Your task to perform on an android device: Open the Play Movies app and select the watchlist tab. Image 0: 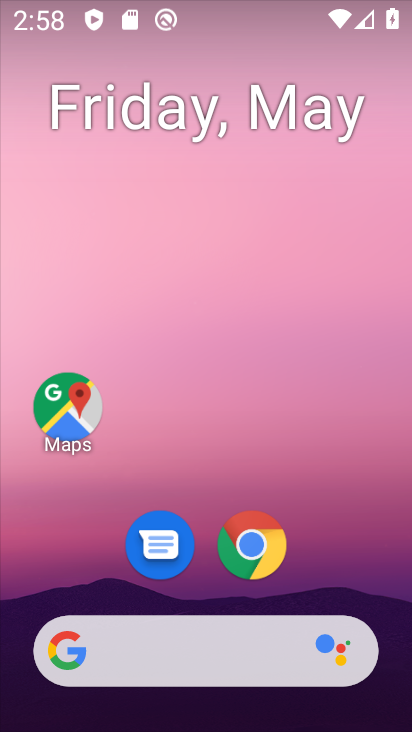
Step 0: drag from (350, 565) to (337, 106)
Your task to perform on an android device: Open the Play Movies app and select the watchlist tab. Image 1: 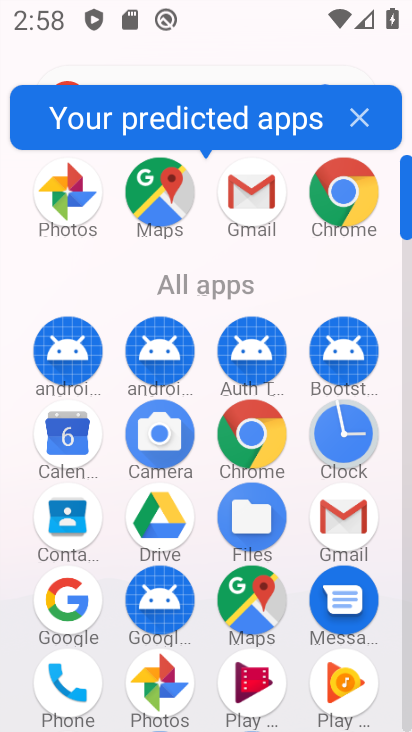
Step 1: click (240, 689)
Your task to perform on an android device: Open the Play Movies app and select the watchlist tab. Image 2: 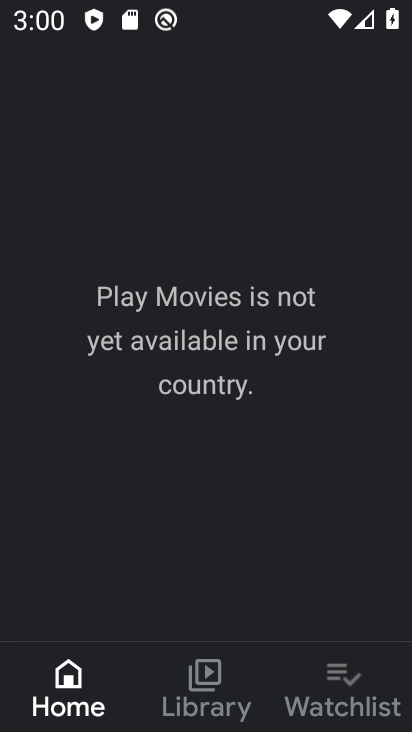
Step 2: click (330, 684)
Your task to perform on an android device: Open the Play Movies app and select the watchlist tab. Image 3: 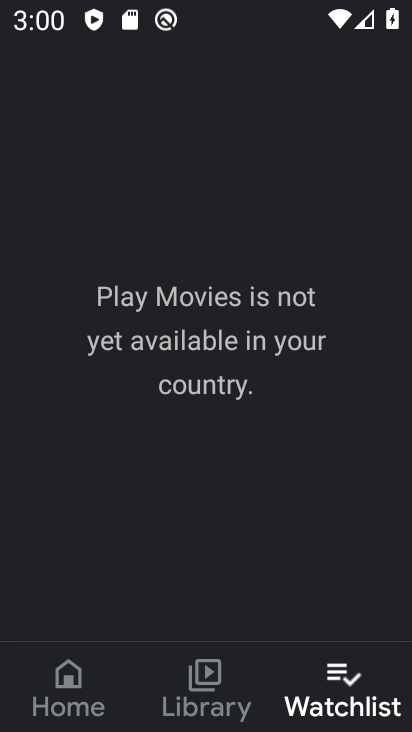
Step 3: task complete